Your task to perform on an android device: Open Chrome and go to settings Image 0: 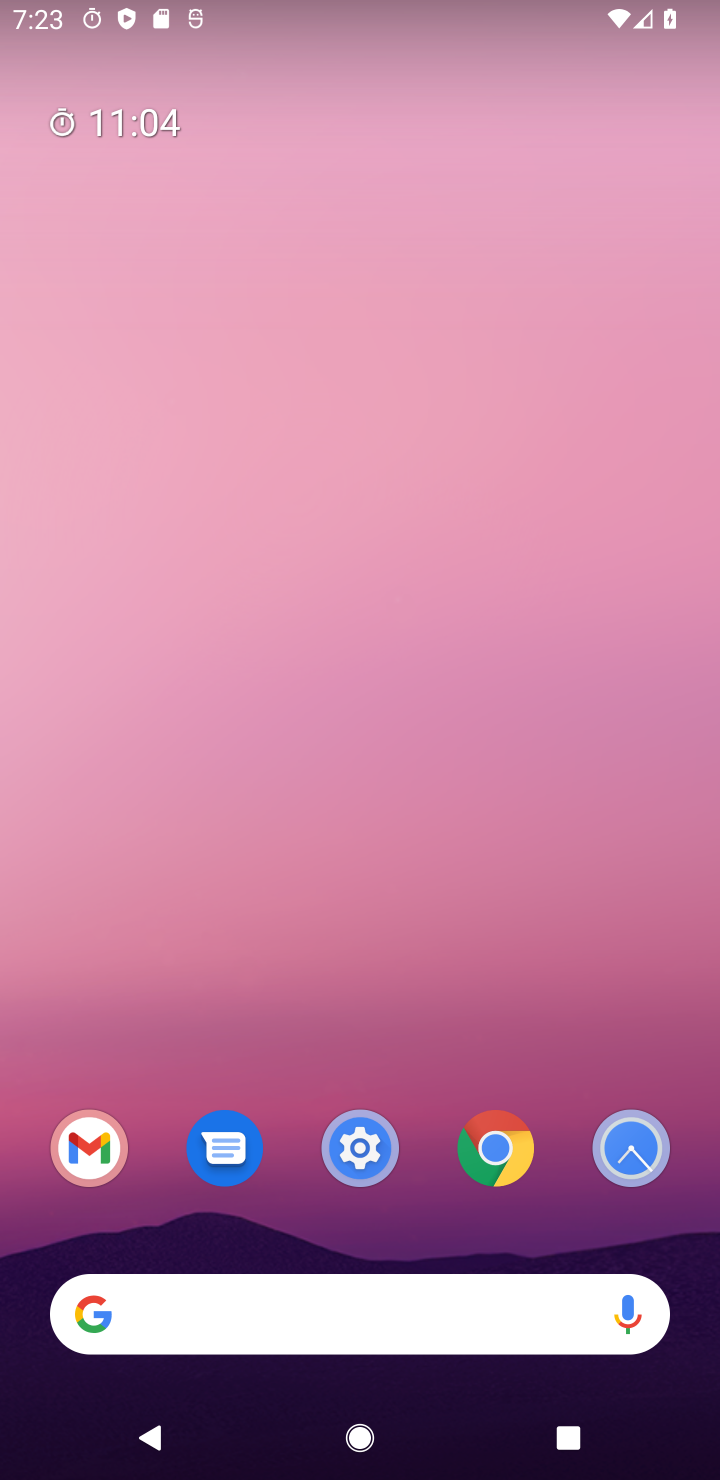
Step 0: click (459, 1189)
Your task to perform on an android device: Open Chrome and go to settings Image 1: 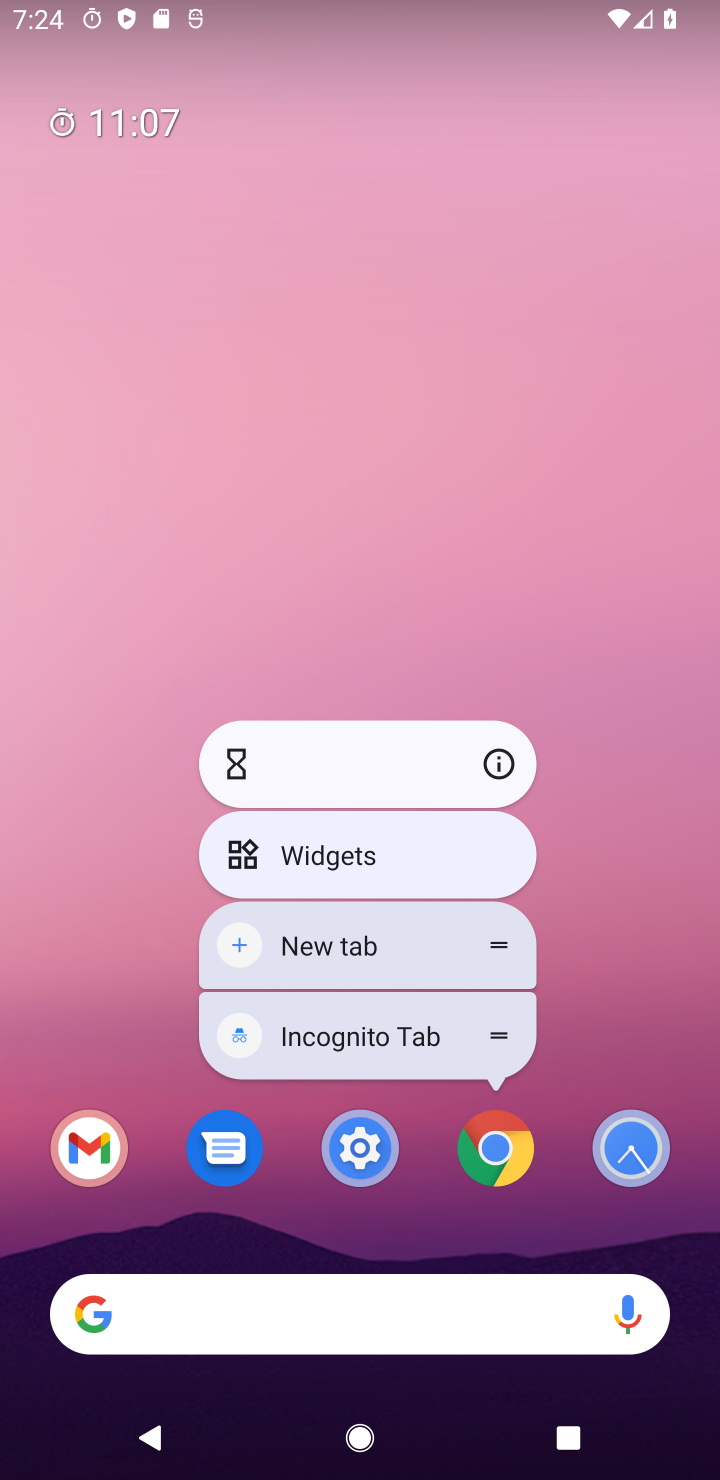
Step 1: click (459, 1189)
Your task to perform on an android device: Open Chrome and go to settings Image 2: 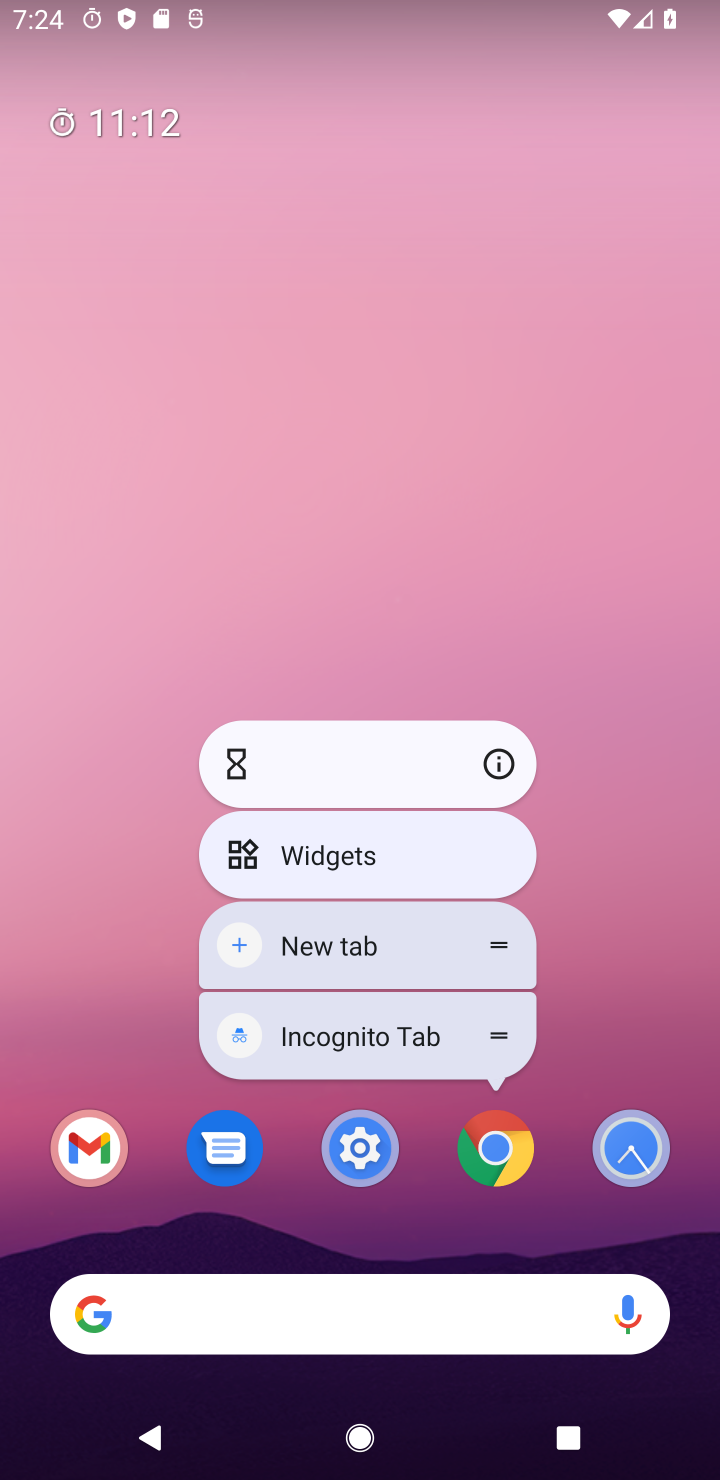
Step 2: click (455, 1176)
Your task to perform on an android device: Open Chrome and go to settings Image 3: 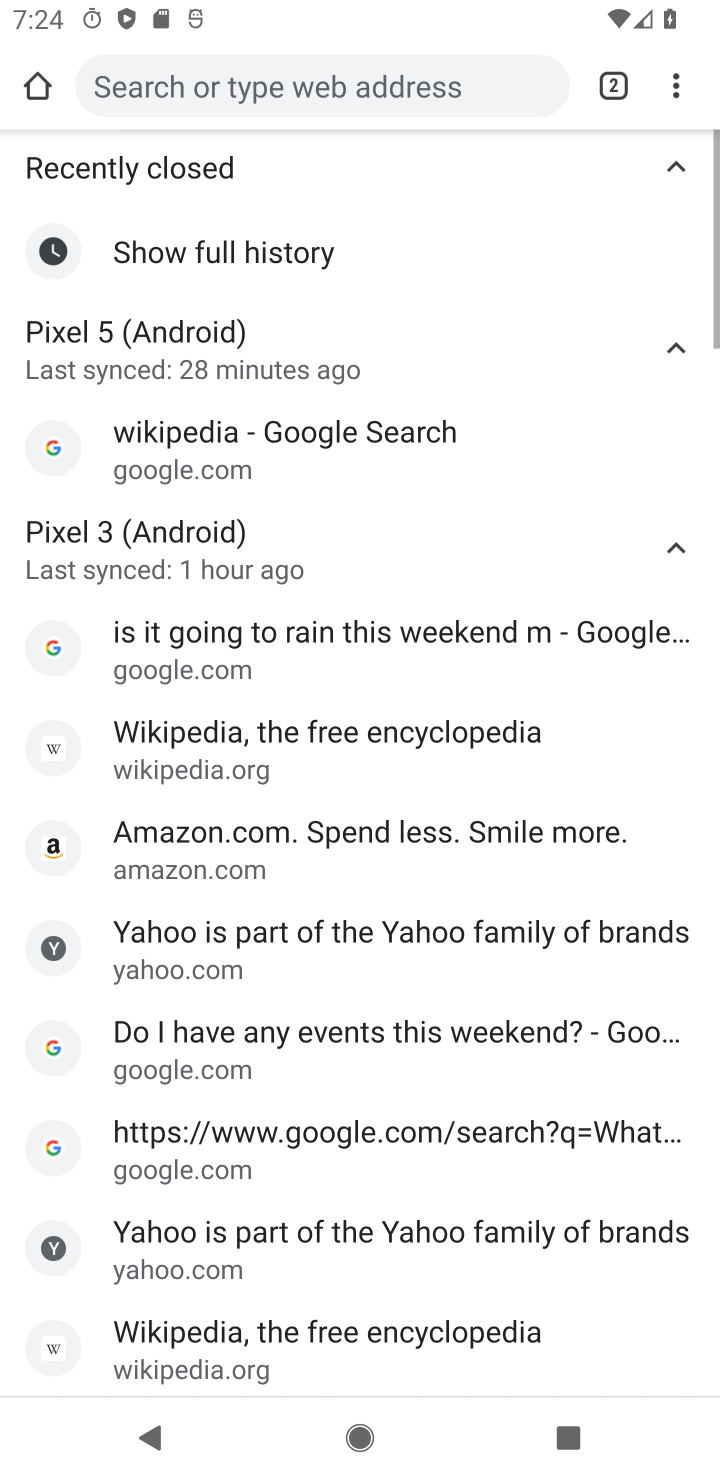
Step 3: task complete